Your task to perform on an android device: What is the recent news? Image 0: 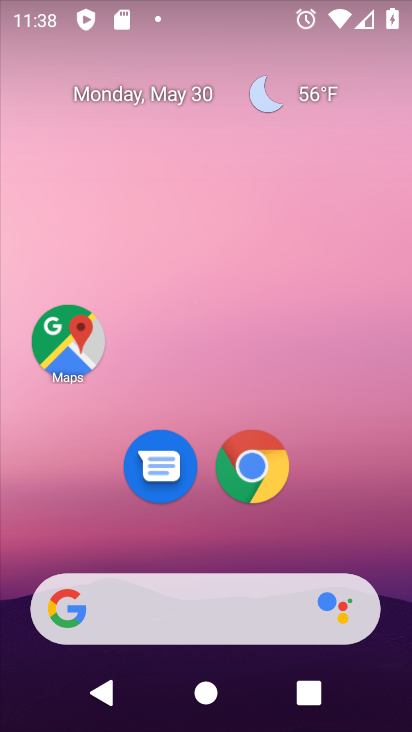
Step 0: drag from (13, 247) to (378, 178)
Your task to perform on an android device: What is the recent news? Image 1: 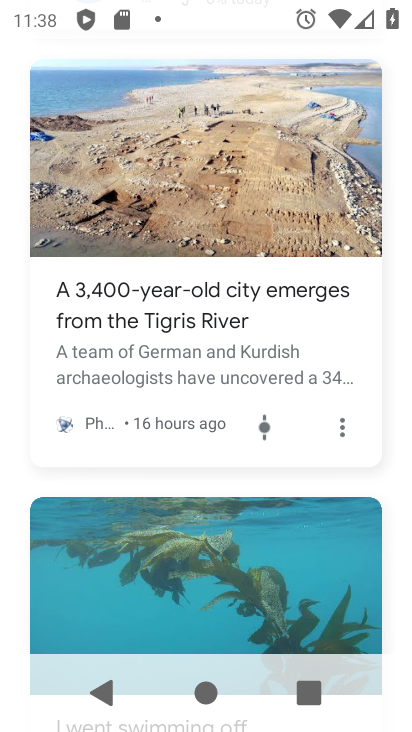
Step 1: task complete